Your task to perform on an android device: open wifi settings Image 0: 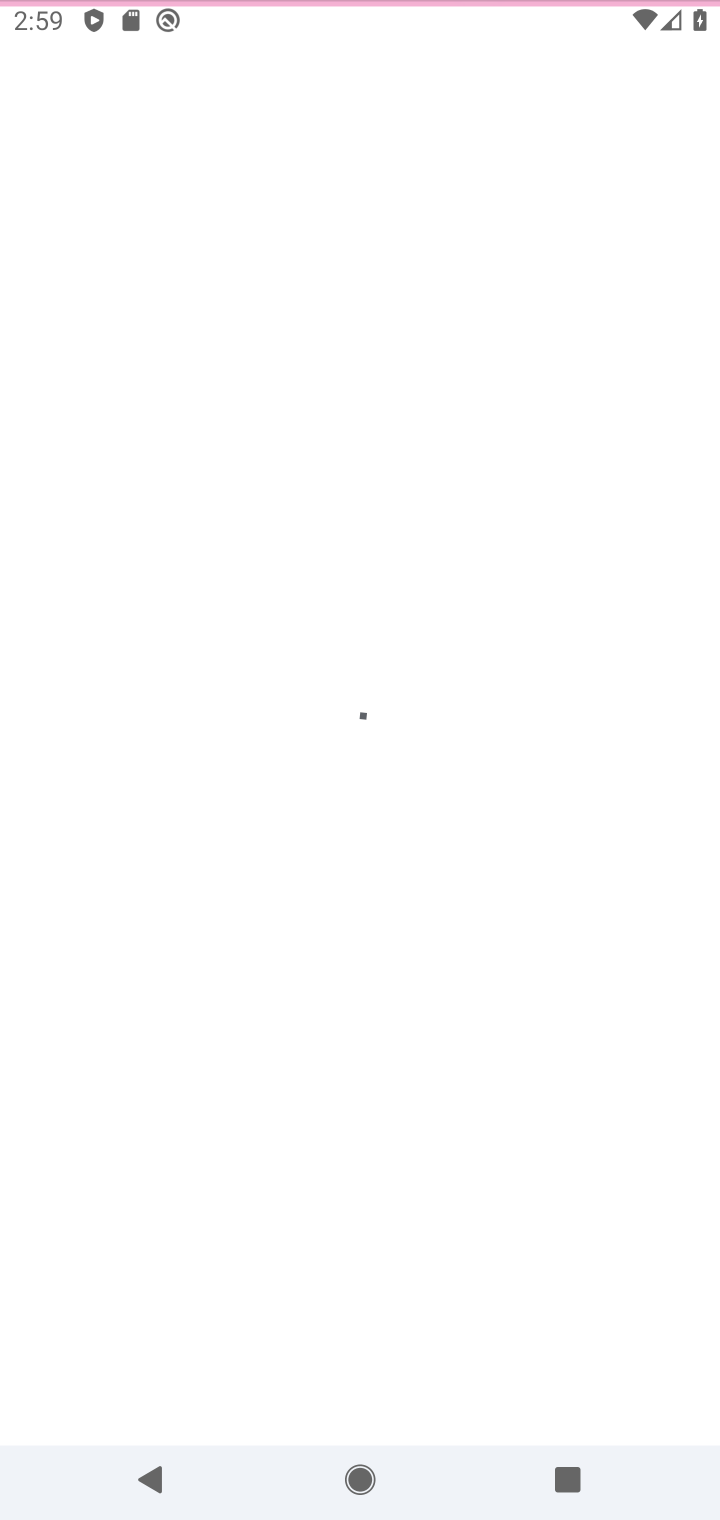
Step 0: press home button
Your task to perform on an android device: open wifi settings Image 1: 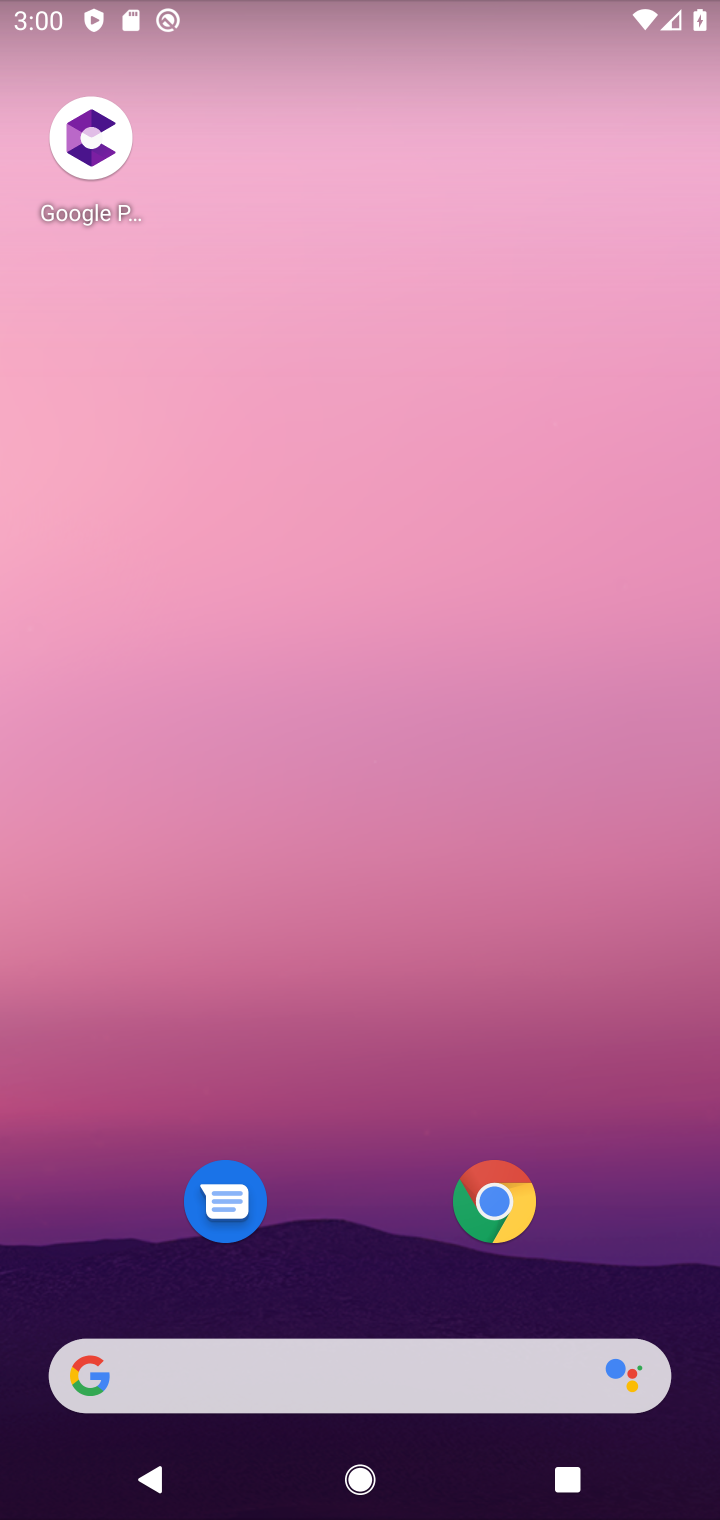
Step 1: drag from (386, 1169) to (365, 203)
Your task to perform on an android device: open wifi settings Image 2: 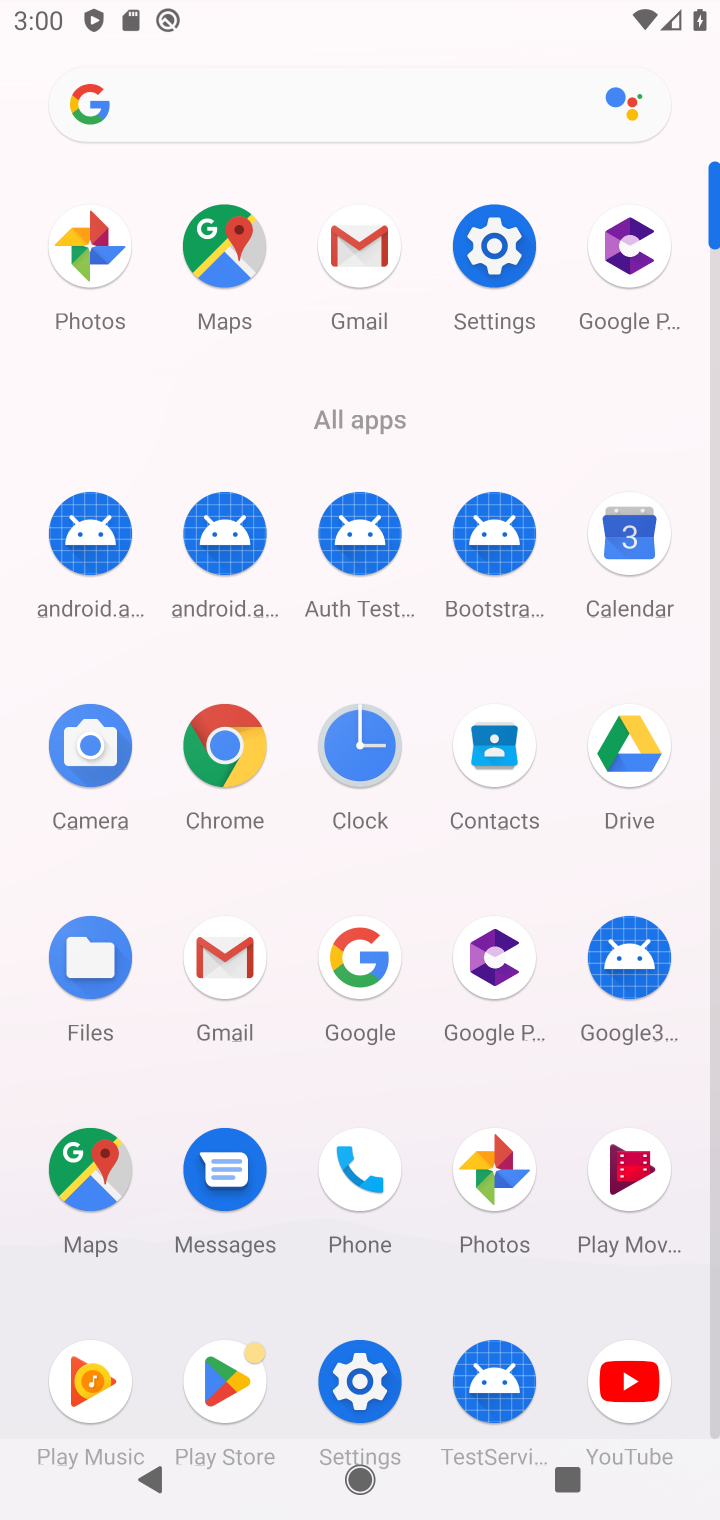
Step 2: click (501, 248)
Your task to perform on an android device: open wifi settings Image 3: 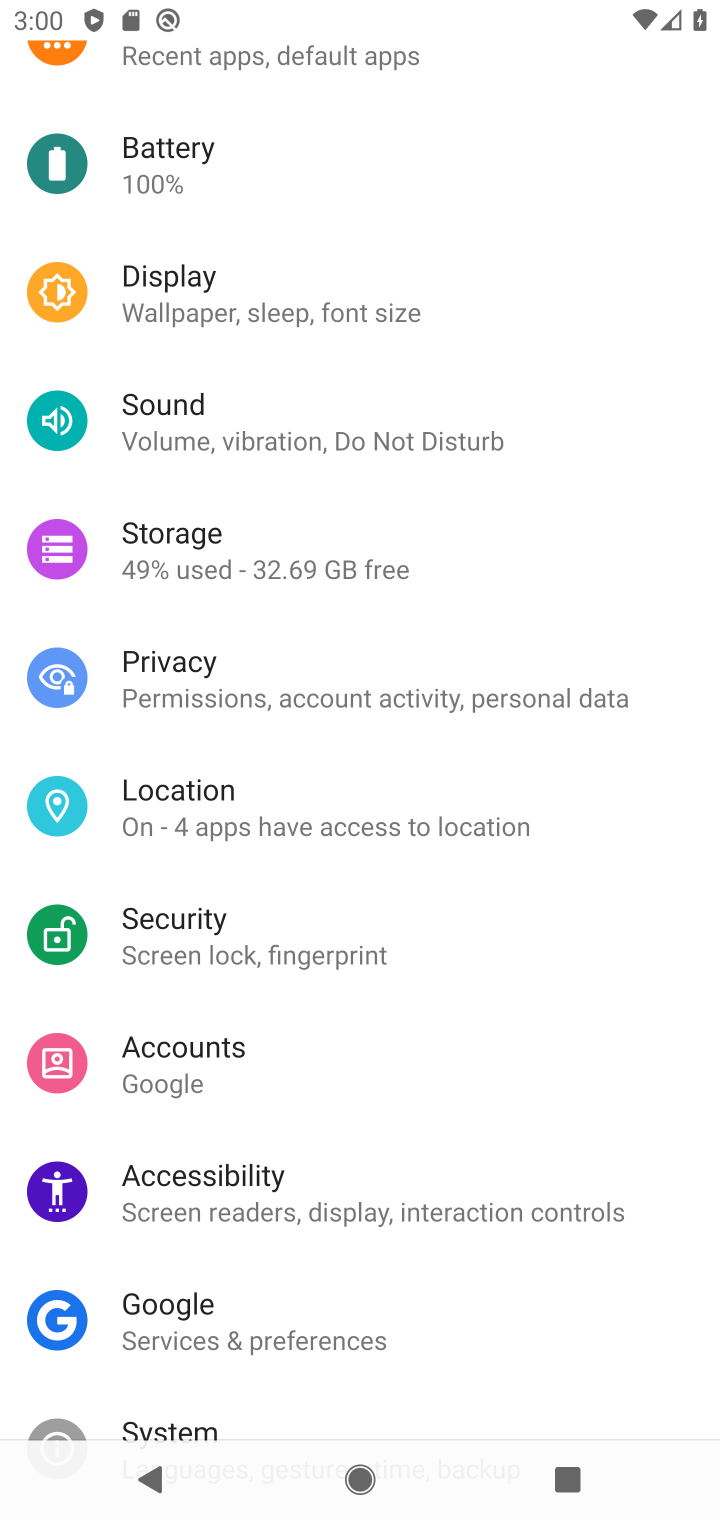
Step 3: drag from (271, 173) to (271, 807)
Your task to perform on an android device: open wifi settings Image 4: 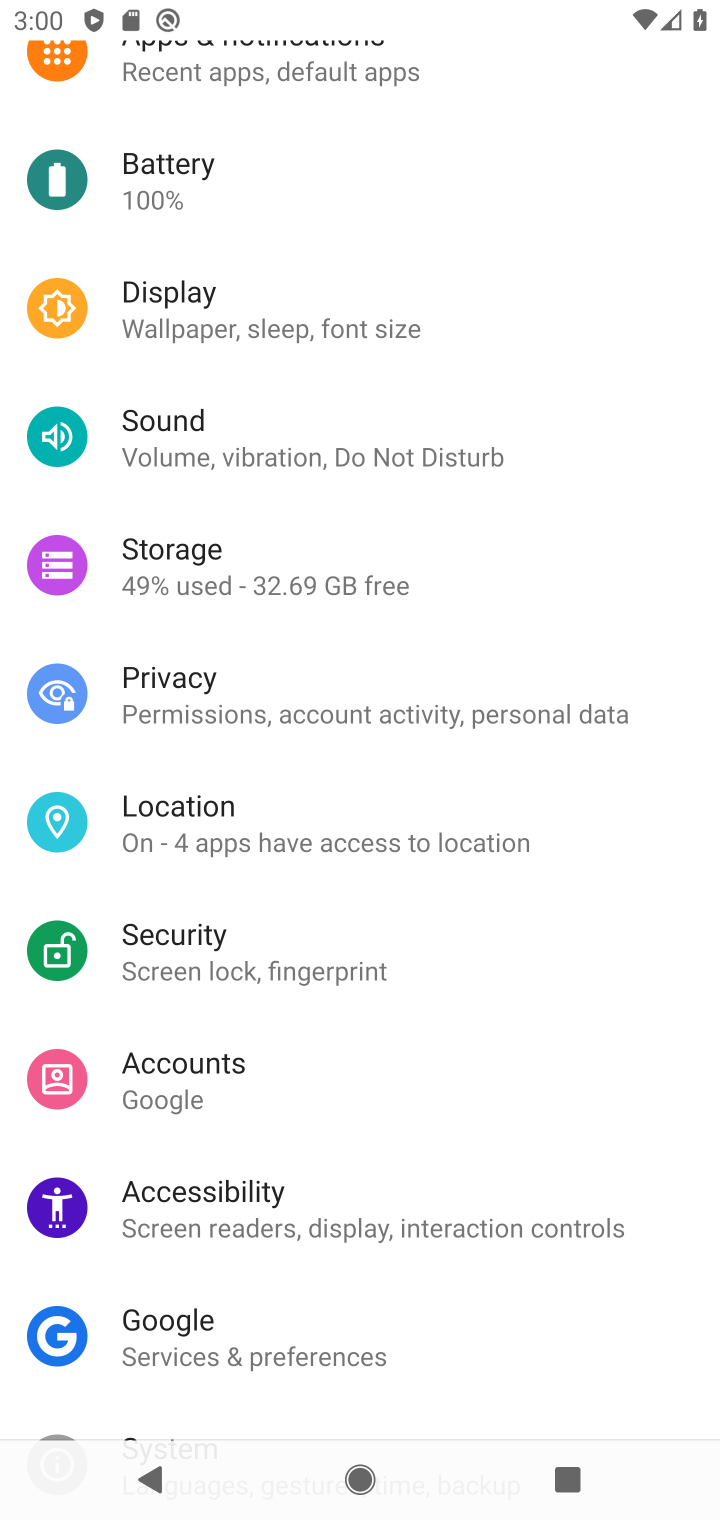
Step 4: drag from (364, 300) to (371, 683)
Your task to perform on an android device: open wifi settings Image 5: 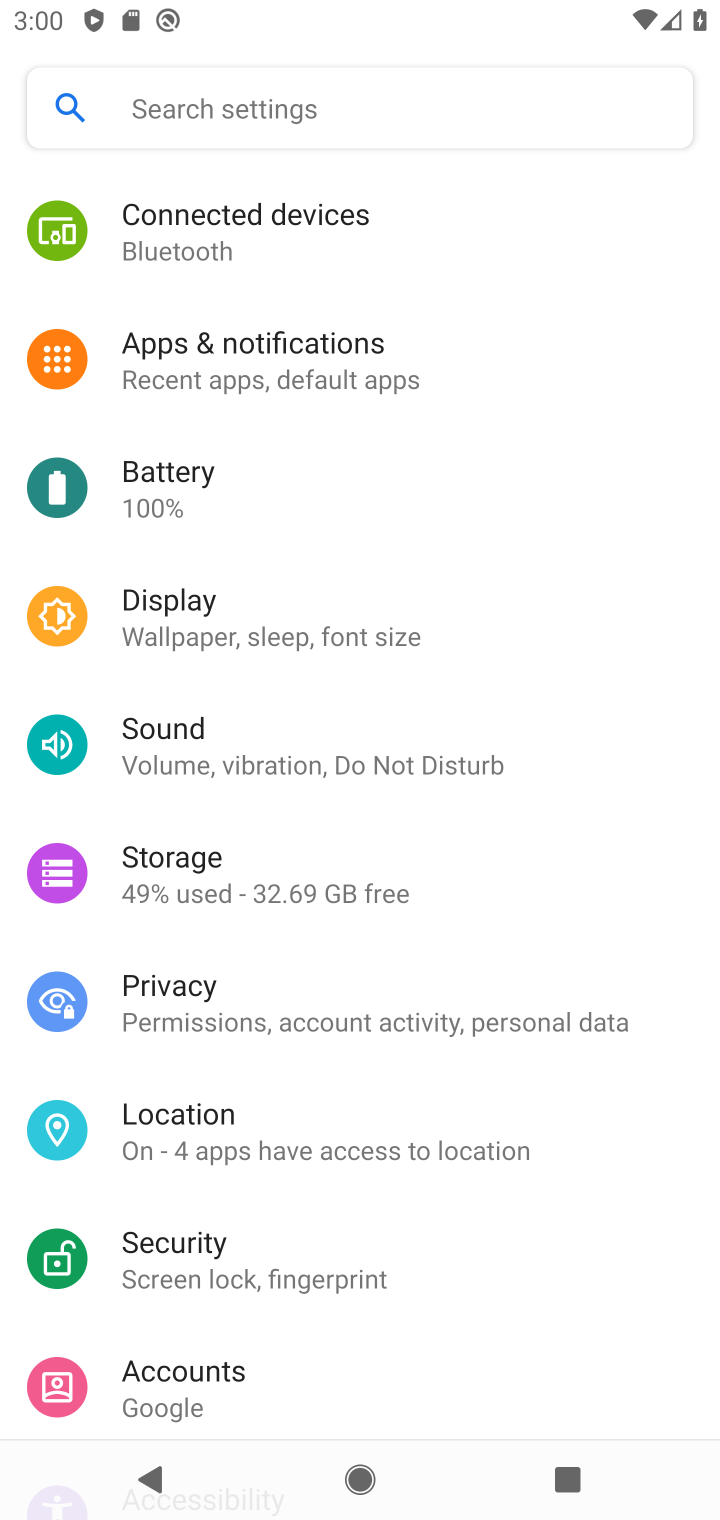
Step 5: drag from (375, 291) to (359, 703)
Your task to perform on an android device: open wifi settings Image 6: 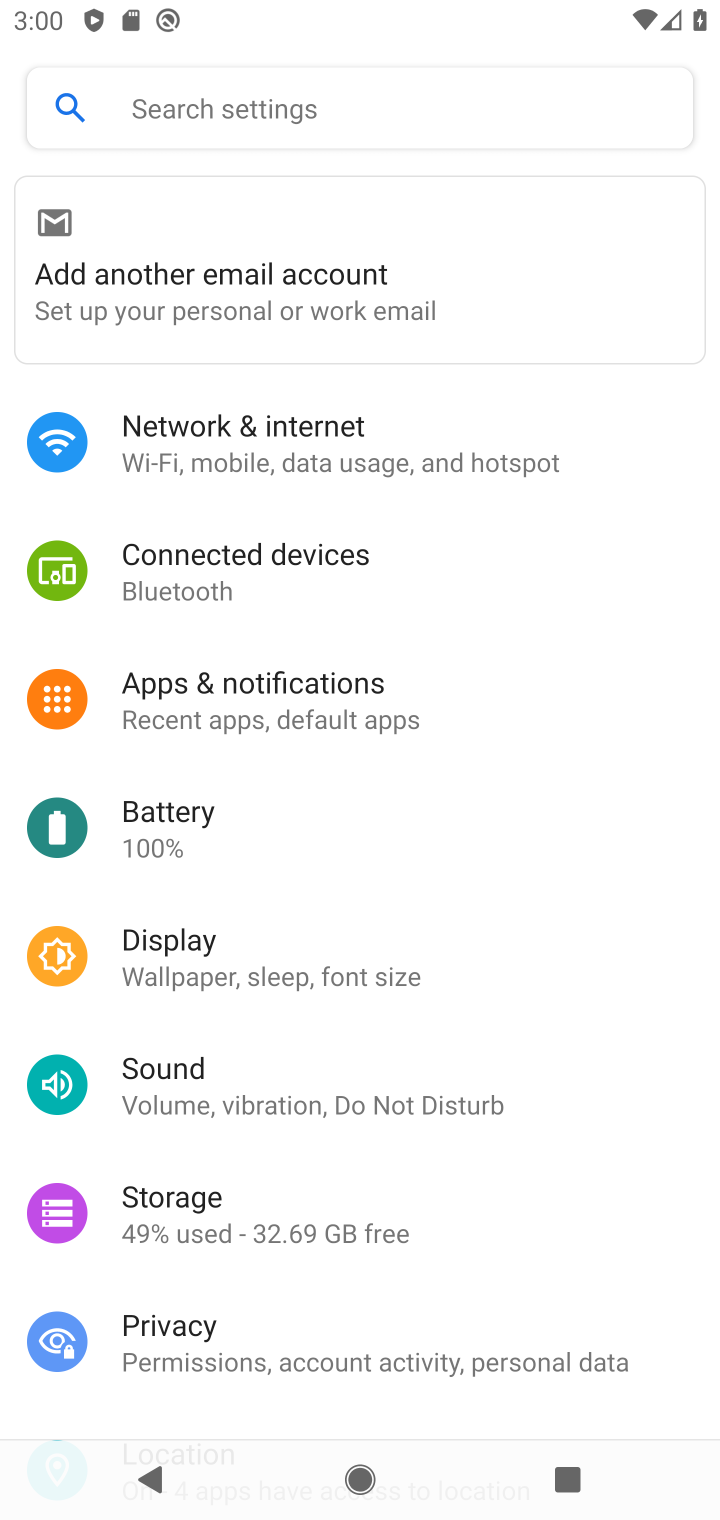
Step 6: click (388, 437)
Your task to perform on an android device: open wifi settings Image 7: 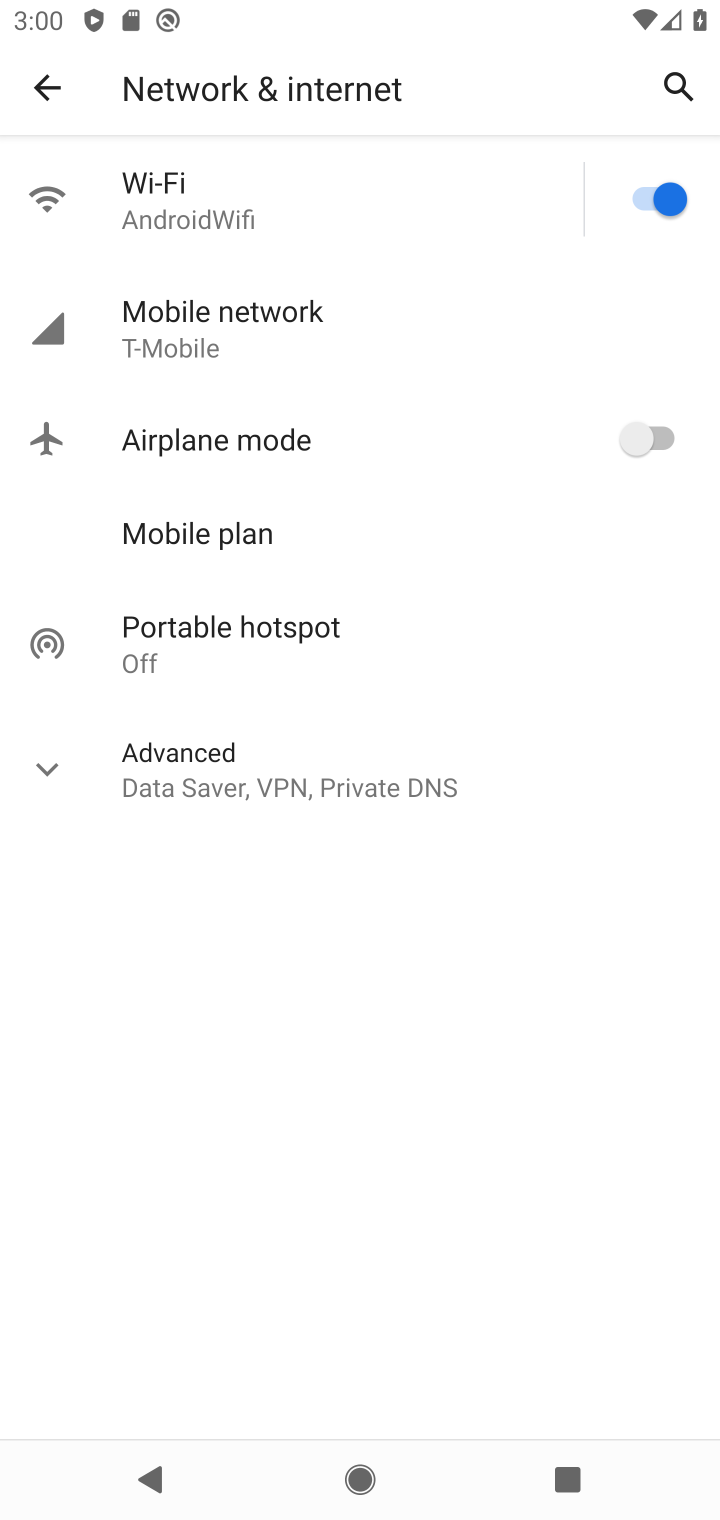
Step 7: click (213, 219)
Your task to perform on an android device: open wifi settings Image 8: 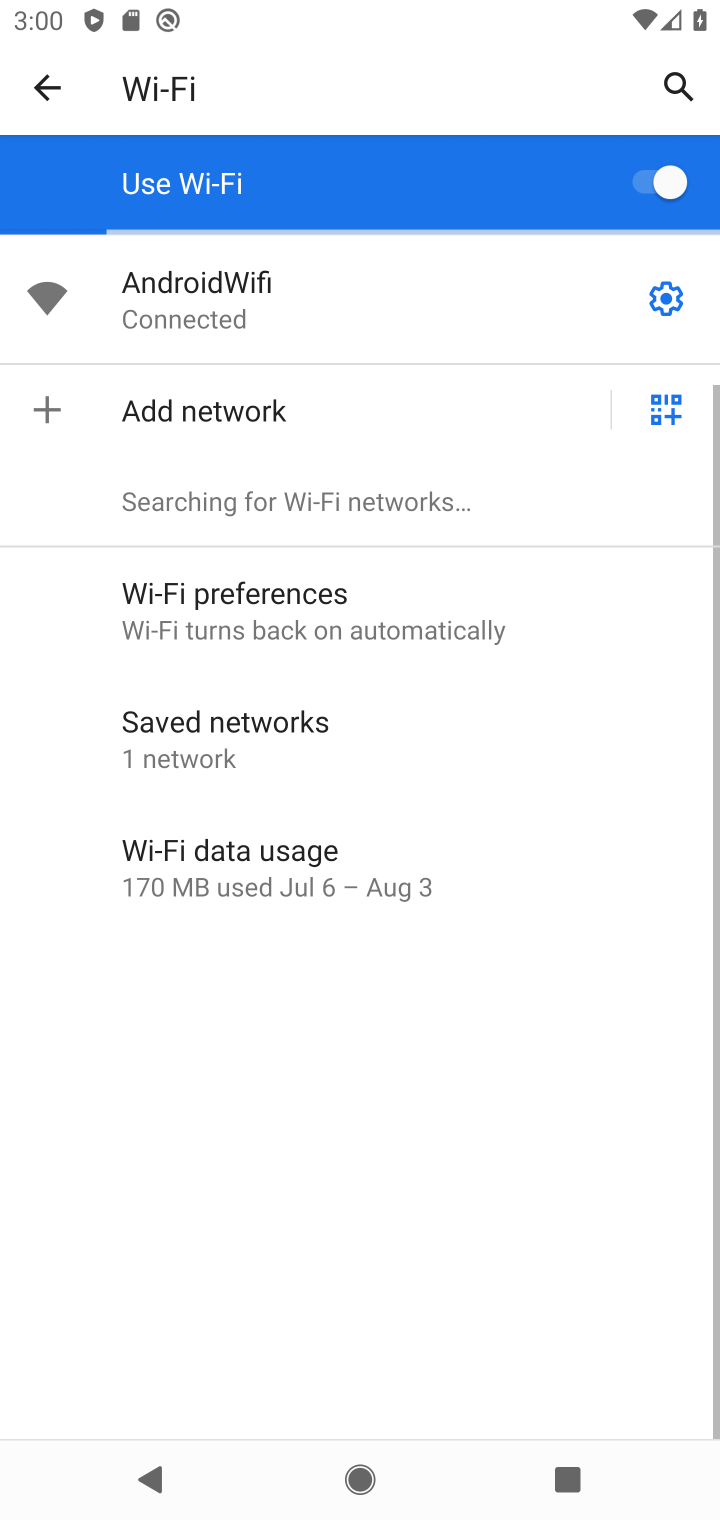
Step 8: task complete